Your task to perform on an android device: check out phone information Image 0: 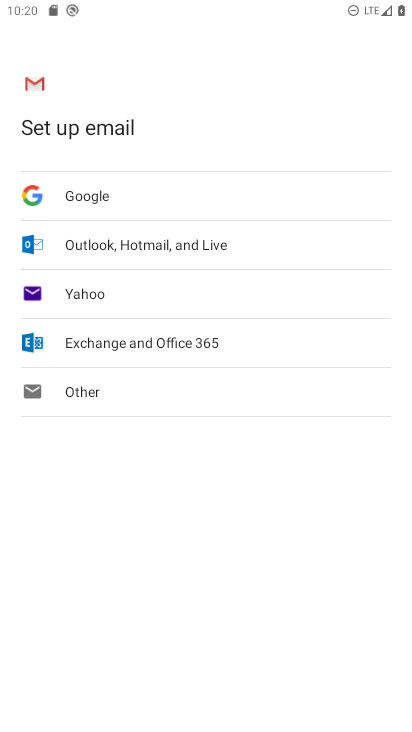
Step 0: press home button
Your task to perform on an android device: check out phone information Image 1: 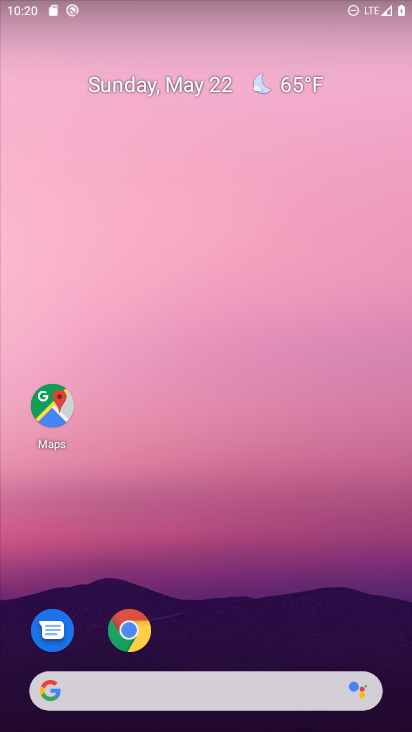
Step 1: drag from (147, 682) to (343, 69)
Your task to perform on an android device: check out phone information Image 2: 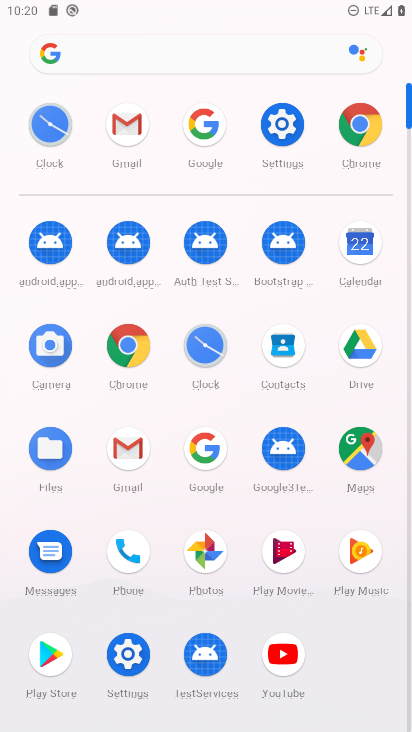
Step 2: click (276, 133)
Your task to perform on an android device: check out phone information Image 3: 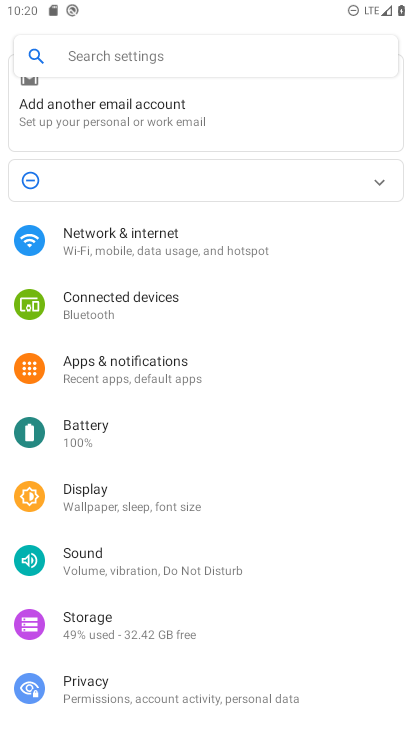
Step 3: drag from (296, 660) to (407, 125)
Your task to perform on an android device: check out phone information Image 4: 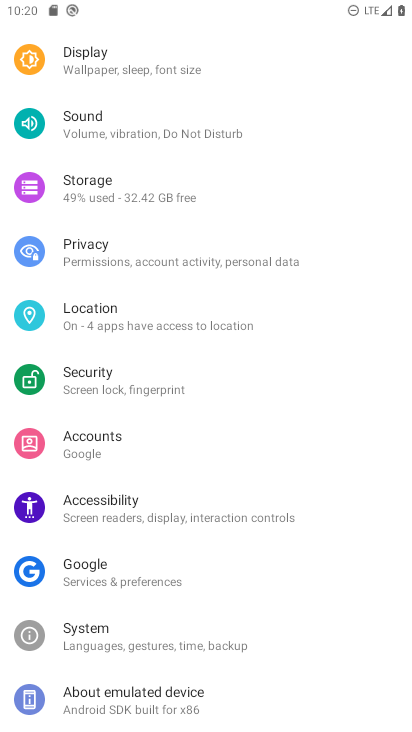
Step 4: drag from (270, 619) to (337, 154)
Your task to perform on an android device: check out phone information Image 5: 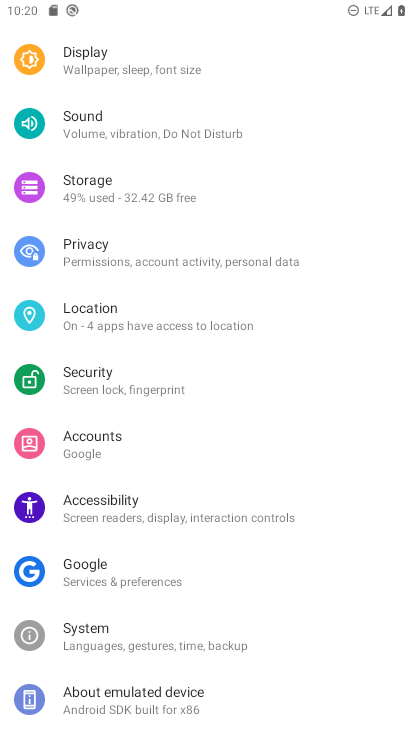
Step 5: click (103, 702)
Your task to perform on an android device: check out phone information Image 6: 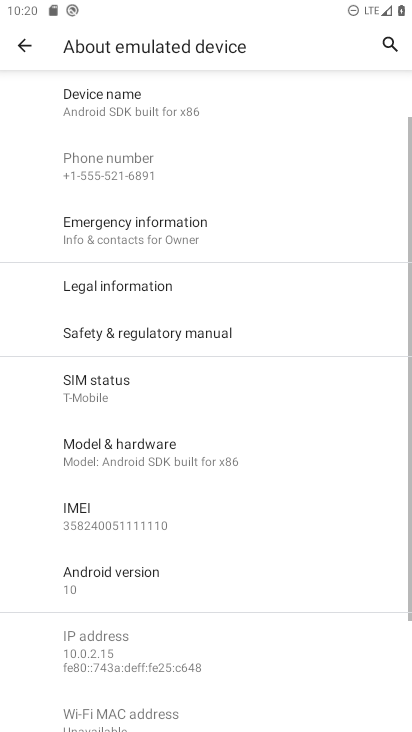
Step 6: task complete